Your task to perform on an android device: When is my next meeting? Image 0: 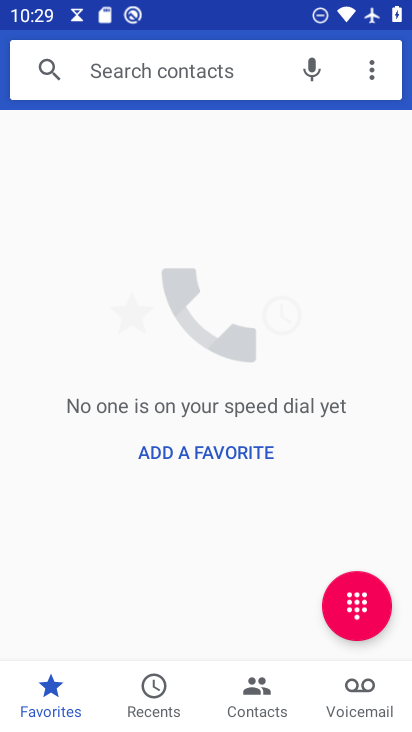
Step 0: press home button
Your task to perform on an android device: When is my next meeting? Image 1: 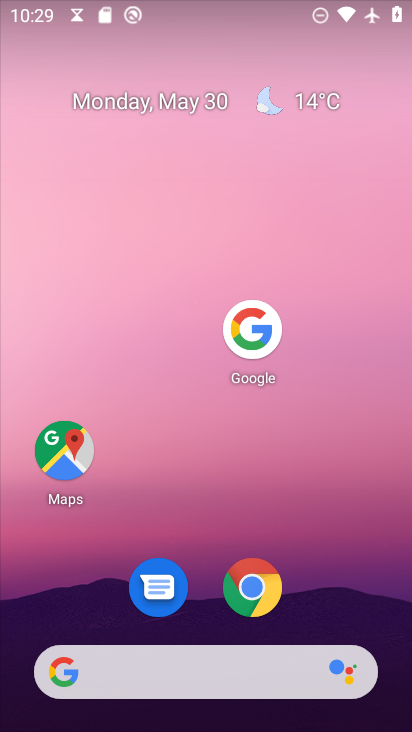
Step 1: drag from (143, 674) to (292, 173)
Your task to perform on an android device: When is my next meeting? Image 2: 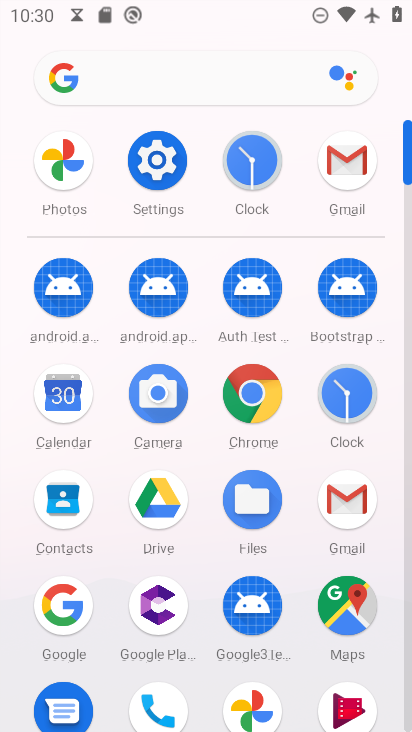
Step 2: click (64, 397)
Your task to perform on an android device: When is my next meeting? Image 3: 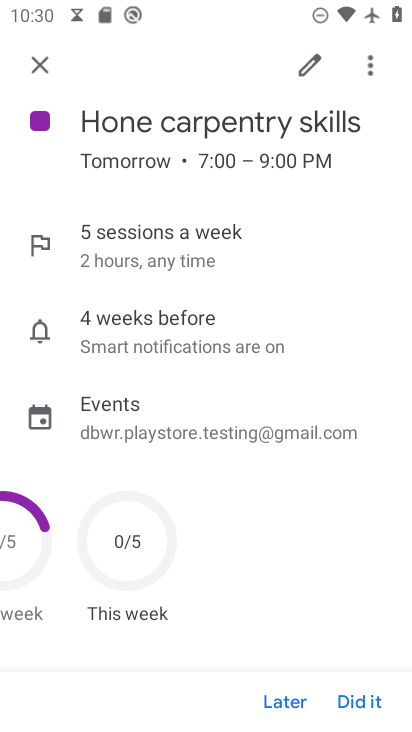
Step 3: click (35, 58)
Your task to perform on an android device: When is my next meeting? Image 4: 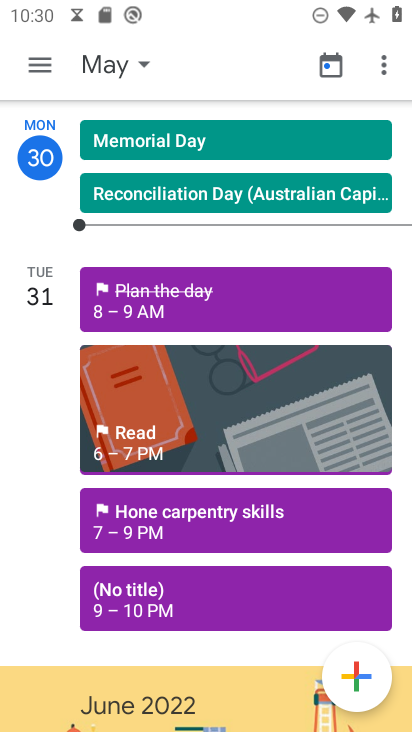
Step 4: task complete